Your task to perform on an android device: toggle data saver in the chrome app Image 0: 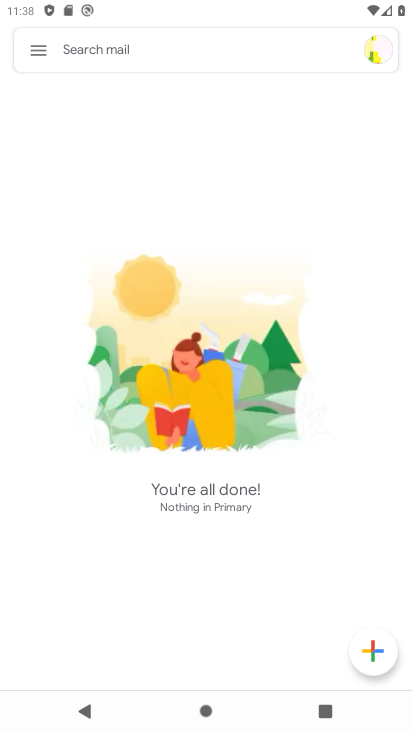
Step 0: press home button
Your task to perform on an android device: toggle data saver in the chrome app Image 1: 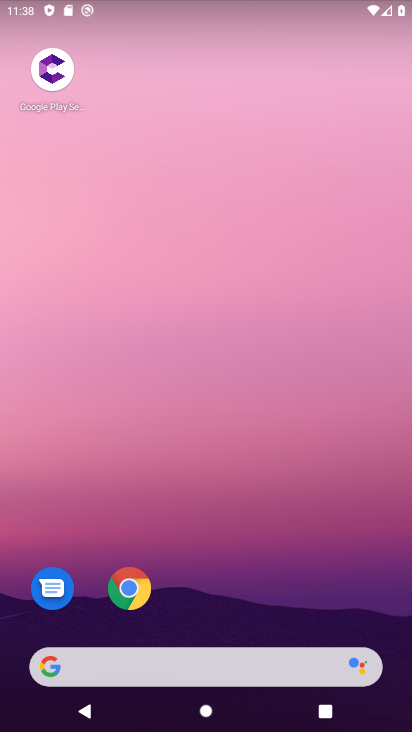
Step 1: drag from (214, 613) to (241, 96)
Your task to perform on an android device: toggle data saver in the chrome app Image 2: 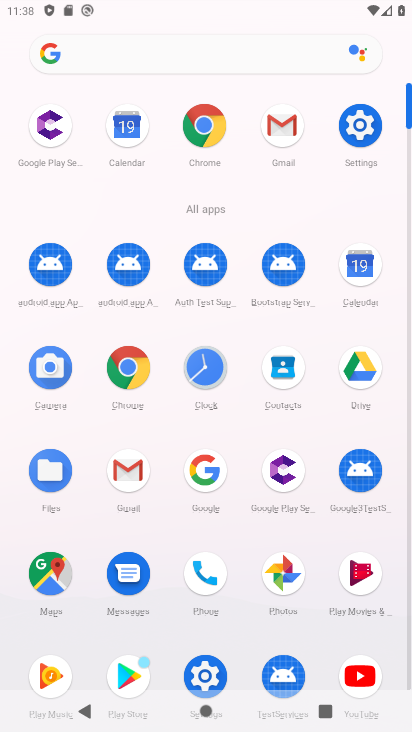
Step 2: click (203, 122)
Your task to perform on an android device: toggle data saver in the chrome app Image 3: 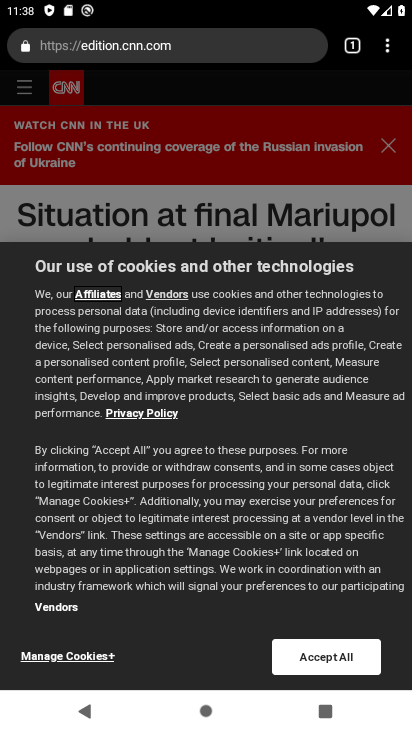
Step 3: click (385, 43)
Your task to perform on an android device: toggle data saver in the chrome app Image 4: 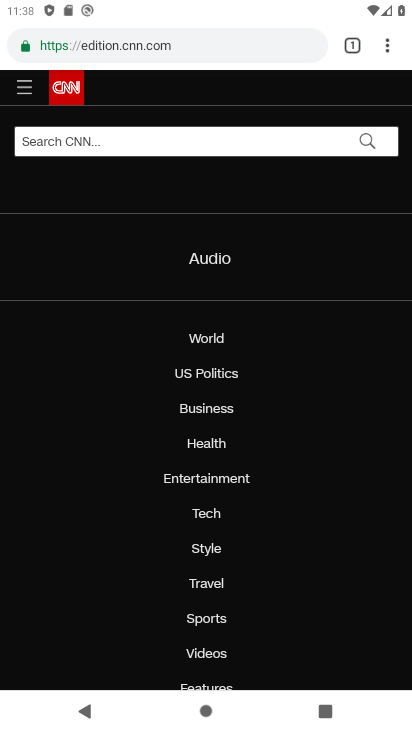
Step 4: click (387, 46)
Your task to perform on an android device: toggle data saver in the chrome app Image 5: 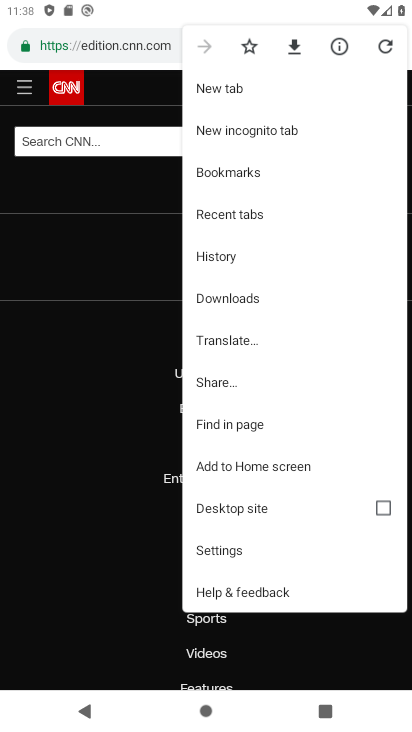
Step 5: click (254, 547)
Your task to perform on an android device: toggle data saver in the chrome app Image 6: 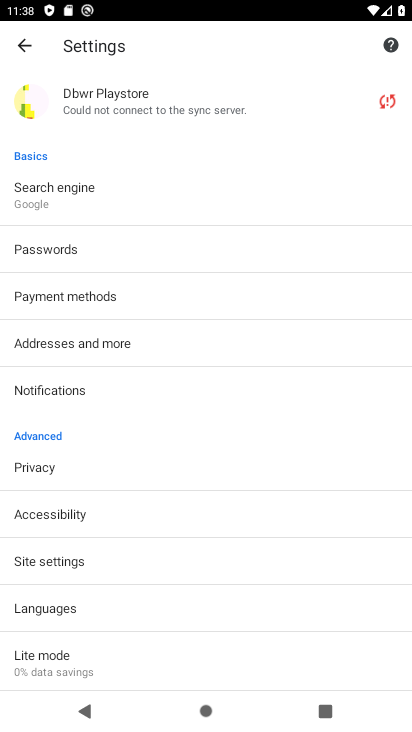
Step 6: click (101, 663)
Your task to perform on an android device: toggle data saver in the chrome app Image 7: 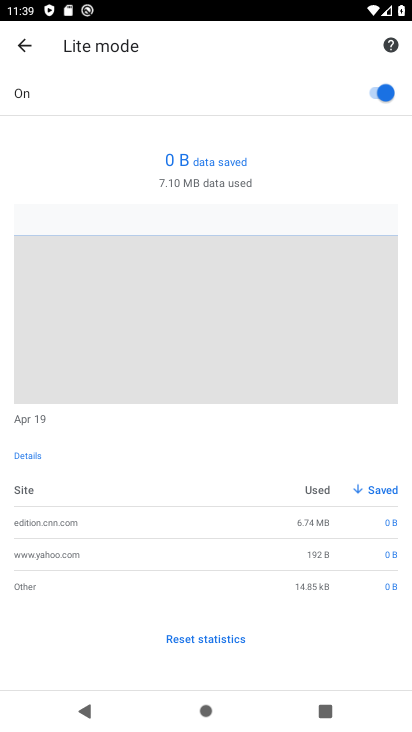
Step 7: click (377, 88)
Your task to perform on an android device: toggle data saver in the chrome app Image 8: 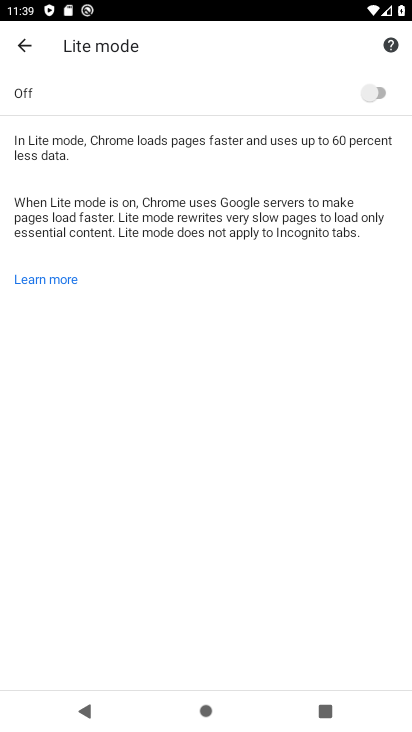
Step 8: task complete